Your task to perform on an android device: search for starred emails in the gmail app Image 0: 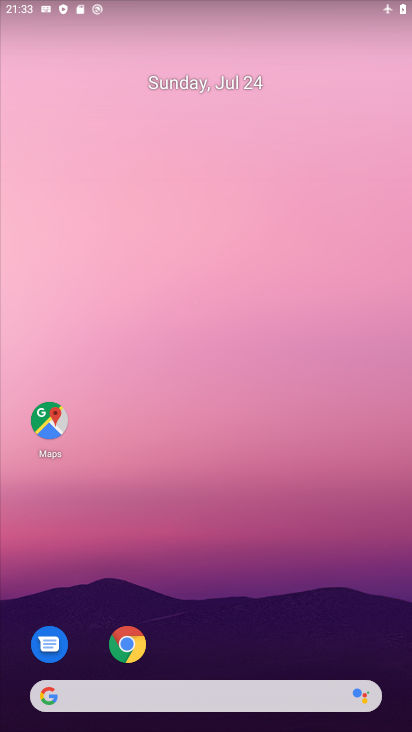
Step 0: drag from (388, 648) to (328, 187)
Your task to perform on an android device: search for starred emails in the gmail app Image 1: 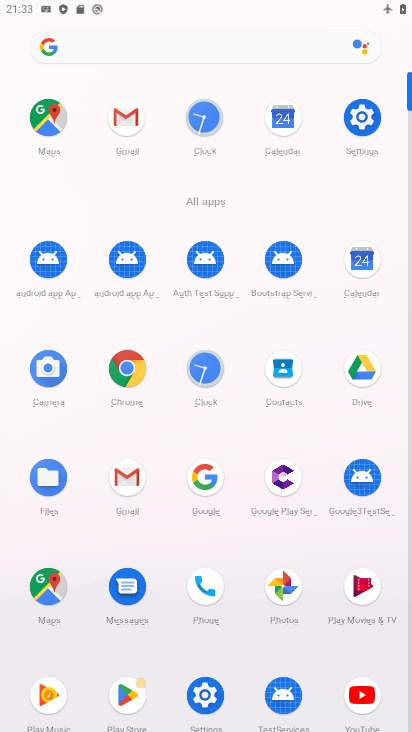
Step 1: click (125, 478)
Your task to perform on an android device: search for starred emails in the gmail app Image 2: 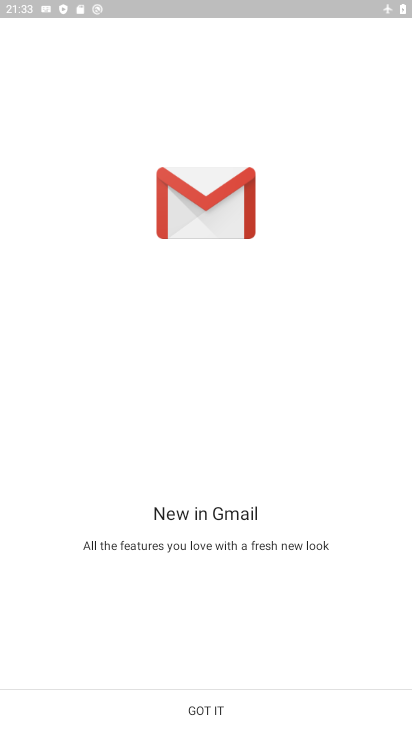
Step 2: click (195, 702)
Your task to perform on an android device: search for starred emails in the gmail app Image 3: 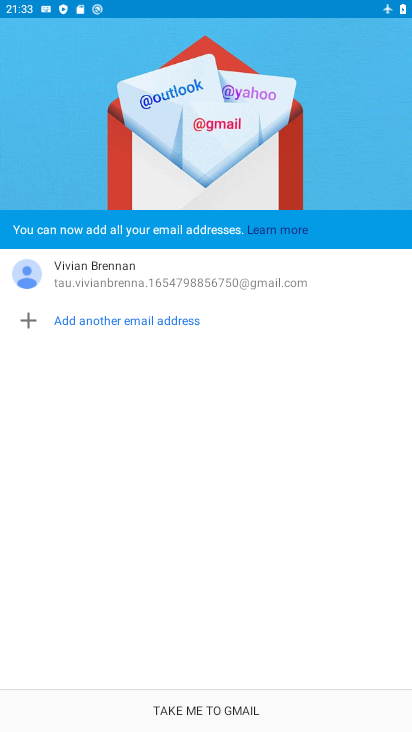
Step 3: click (217, 708)
Your task to perform on an android device: search for starred emails in the gmail app Image 4: 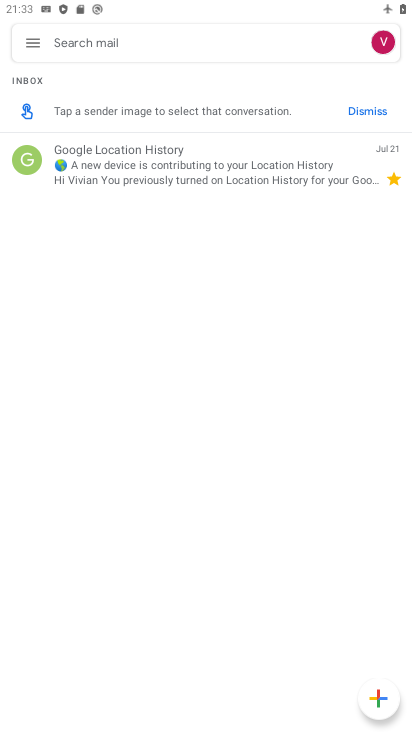
Step 4: click (35, 45)
Your task to perform on an android device: search for starred emails in the gmail app Image 5: 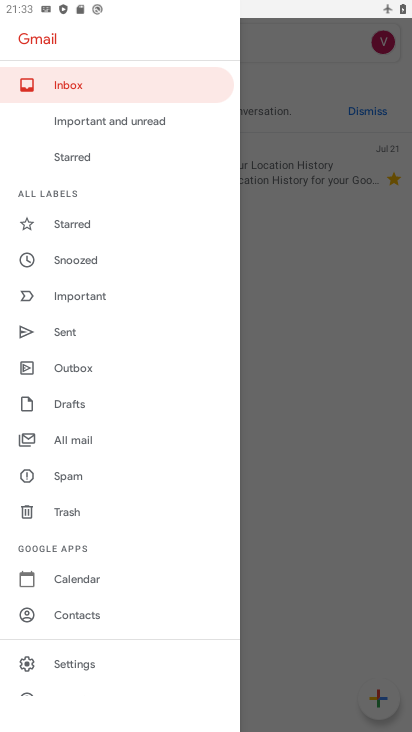
Step 5: click (66, 220)
Your task to perform on an android device: search for starred emails in the gmail app Image 6: 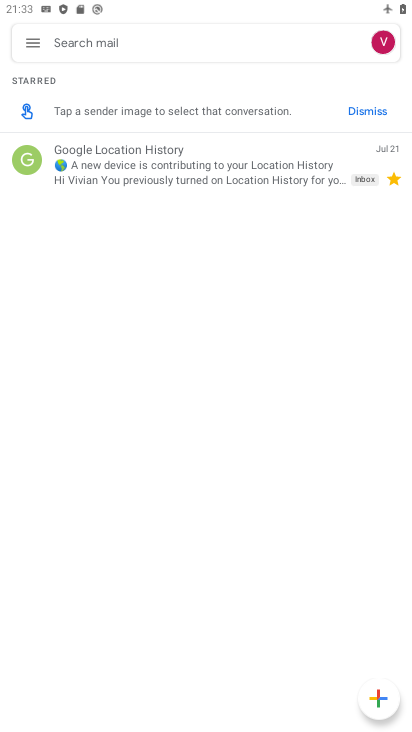
Step 6: task complete